Your task to perform on an android device: Go to Yahoo.com Image 0: 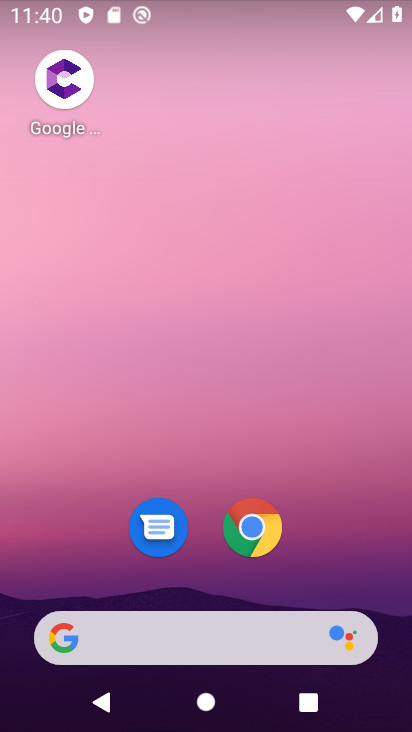
Step 0: click (190, 641)
Your task to perform on an android device: Go to Yahoo.com Image 1: 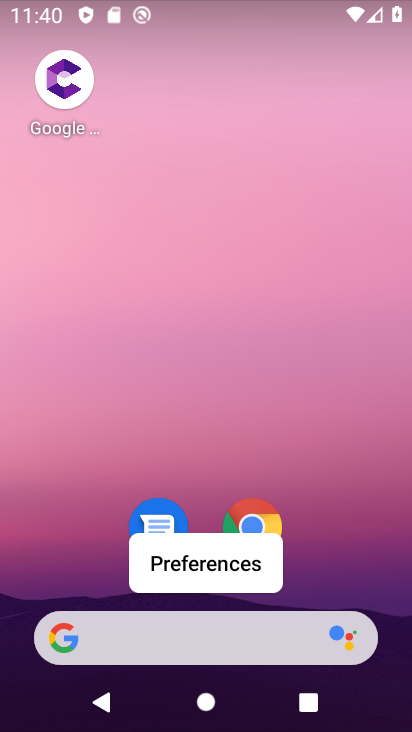
Step 1: click (197, 624)
Your task to perform on an android device: Go to Yahoo.com Image 2: 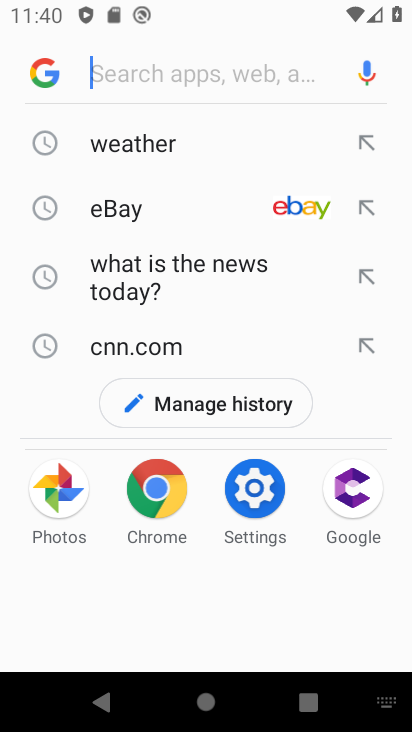
Step 2: type "Yahoo.com"
Your task to perform on an android device: Go to Yahoo.com Image 3: 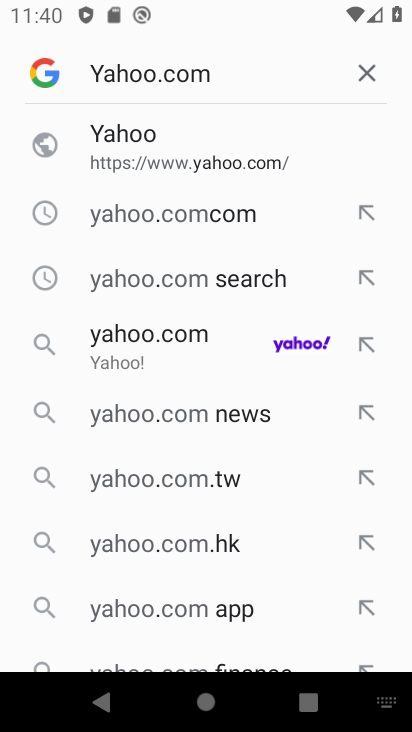
Step 3: click (182, 147)
Your task to perform on an android device: Go to Yahoo.com Image 4: 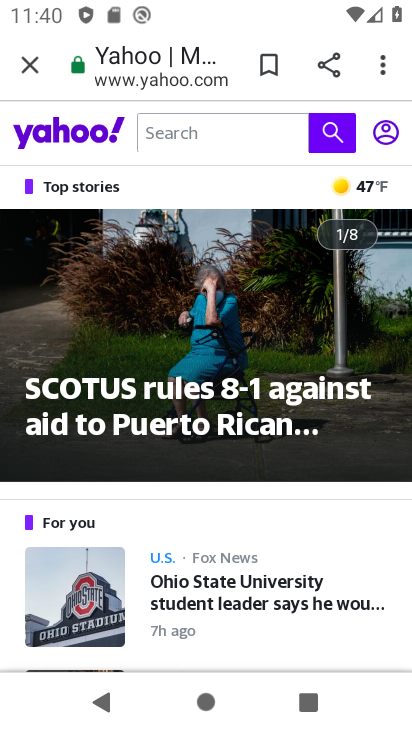
Step 4: task complete